Your task to perform on an android device: turn notification dots on Image 0: 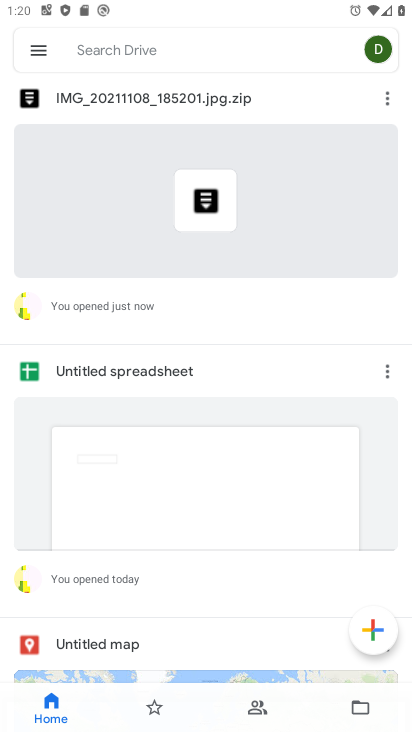
Step 0: press home button
Your task to perform on an android device: turn notification dots on Image 1: 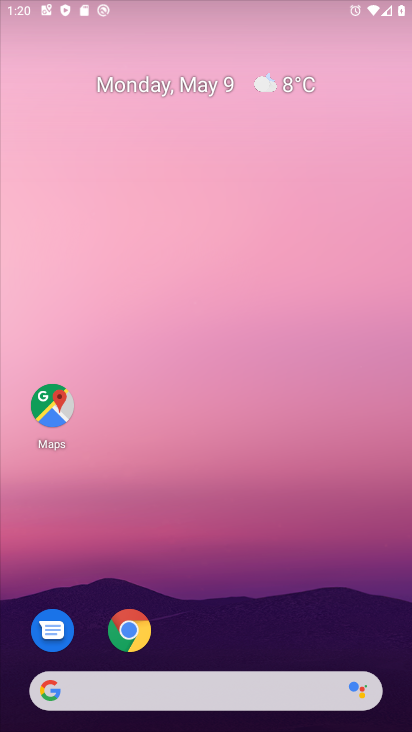
Step 1: drag from (313, 622) to (193, 80)
Your task to perform on an android device: turn notification dots on Image 2: 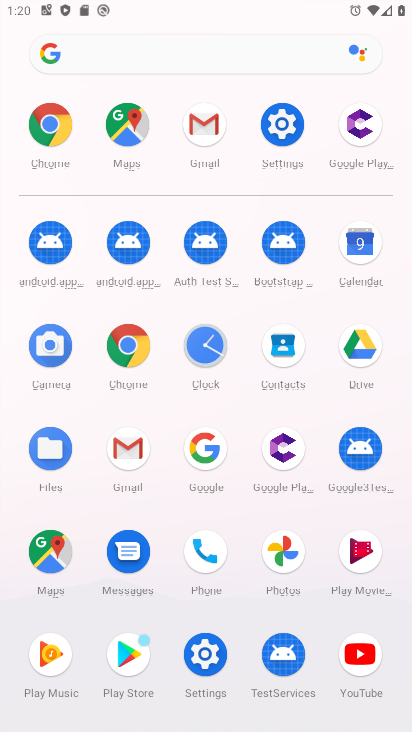
Step 2: click (196, 661)
Your task to perform on an android device: turn notification dots on Image 3: 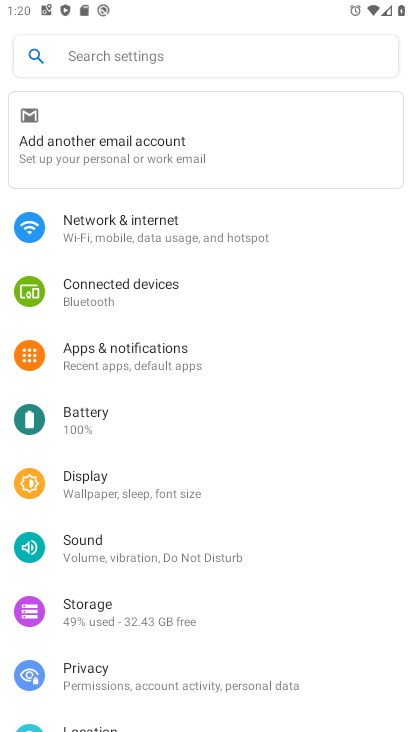
Step 3: click (180, 362)
Your task to perform on an android device: turn notification dots on Image 4: 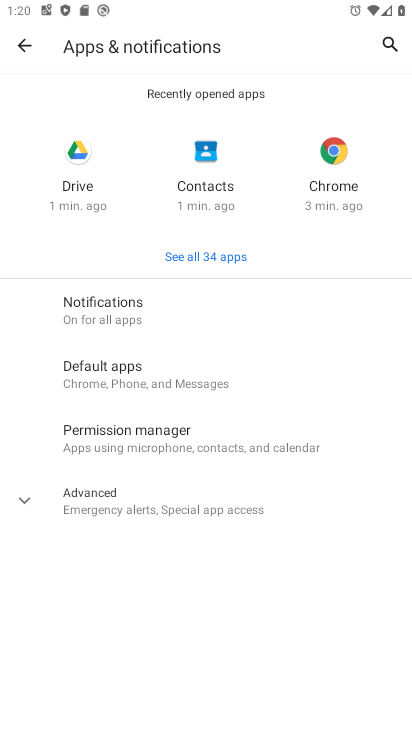
Step 4: click (145, 315)
Your task to perform on an android device: turn notification dots on Image 5: 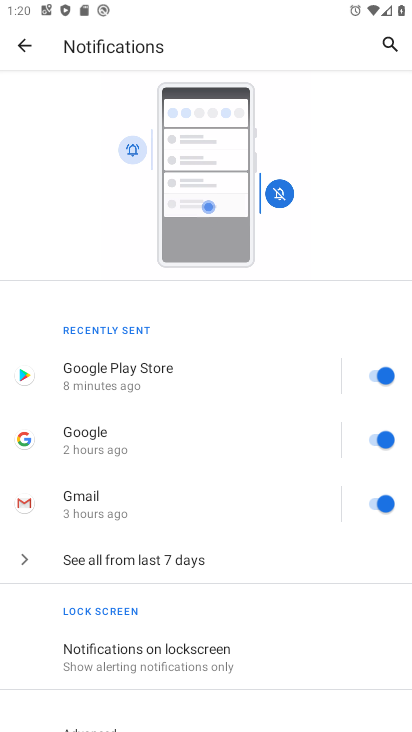
Step 5: drag from (206, 658) to (259, 169)
Your task to perform on an android device: turn notification dots on Image 6: 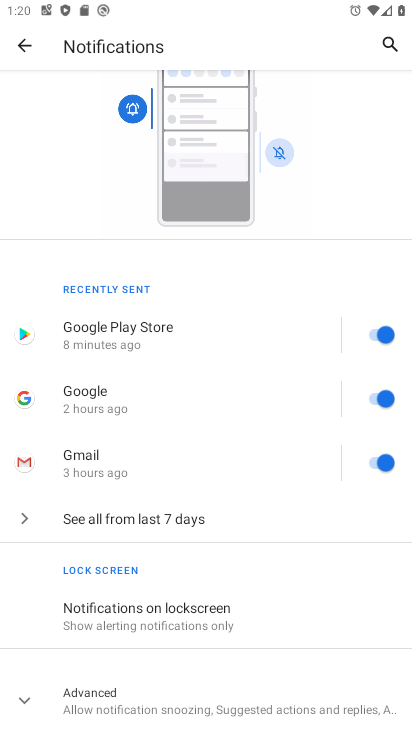
Step 6: click (143, 683)
Your task to perform on an android device: turn notification dots on Image 7: 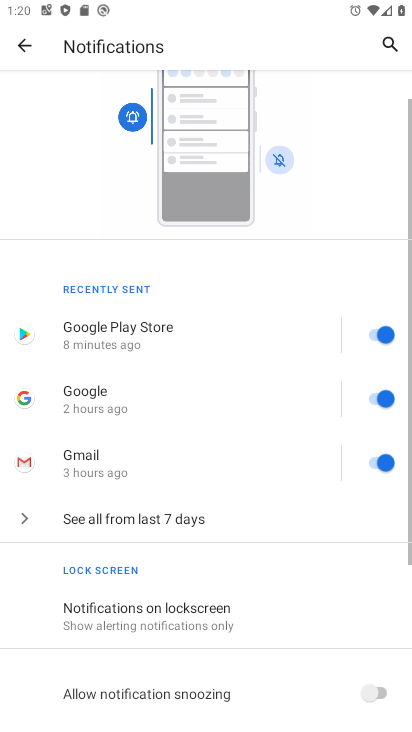
Step 7: task complete